Your task to perform on an android device: turn on showing notifications on the lock screen Image 0: 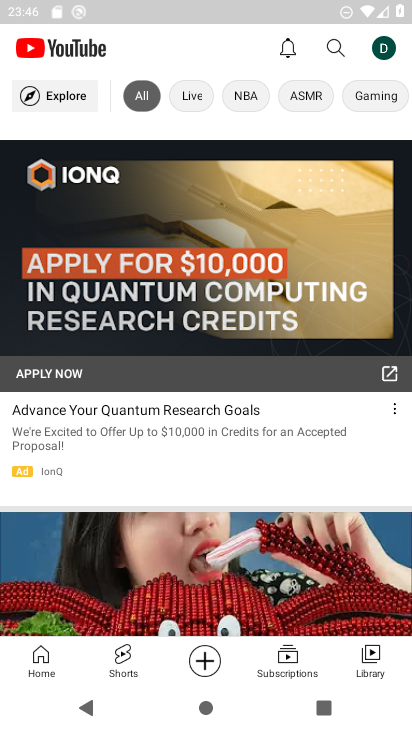
Step 0: press home button
Your task to perform on an android device: turn on showing notifications on the lock screen Image 1: 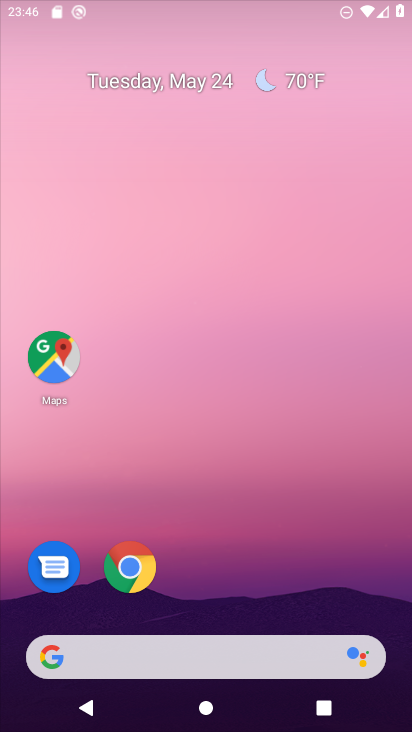
Step 1: drag from (305, 533) to (136, 7)
Your task to perform on an android device: turn on showing notifications on the lock screen Image 2: 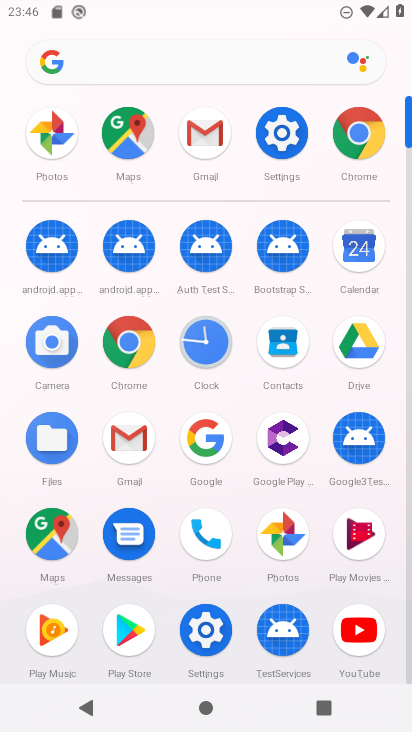
Step 2: click (279, 128)
Your task to perform on an android device: turn on showing notifications on the lock screen Image 3: 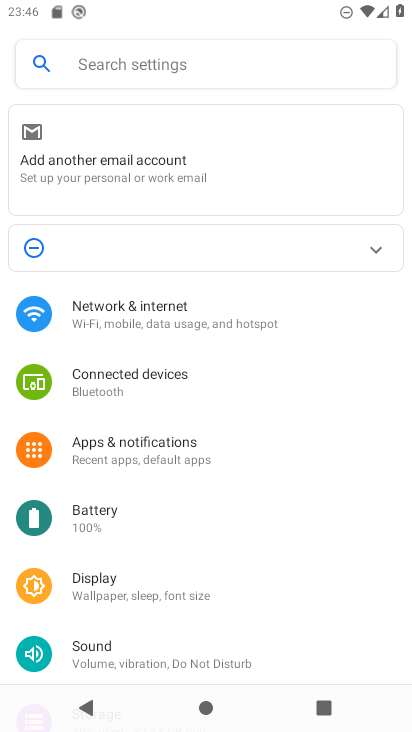
Step 3: click (213, 443)
Your task to perform on an android device: turn on showing notifications on the lock screen Image 4: 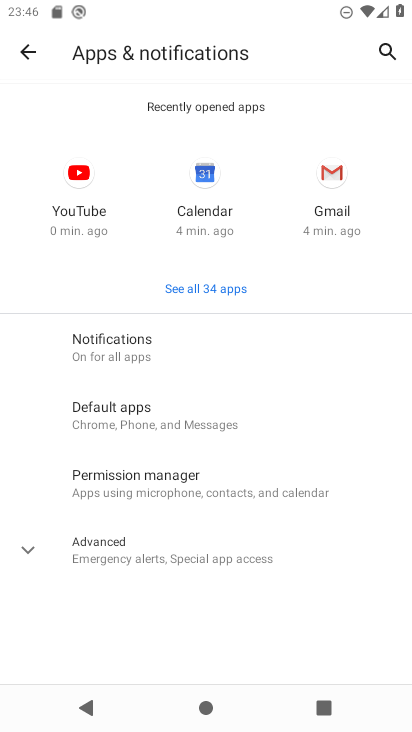
Step 4: click (184, 346)
Your task to perform on an android device: turn on showing notifications on the lock screen Image 5: 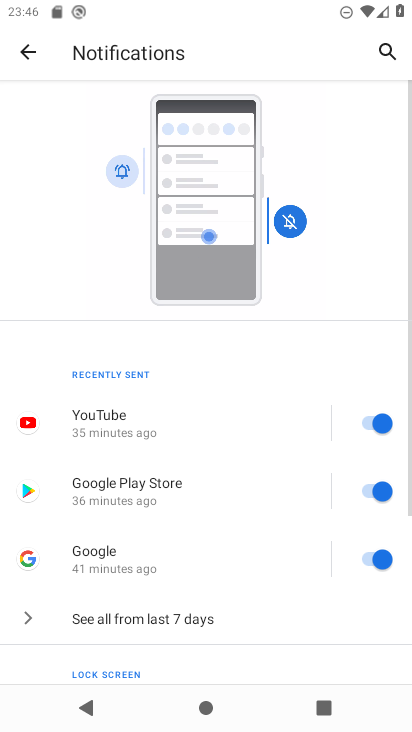
Step 5: drag from (240, 625) to (239, 353)
Your task to perform on an android device: turn on showing notifications on the lock screen Image 6: 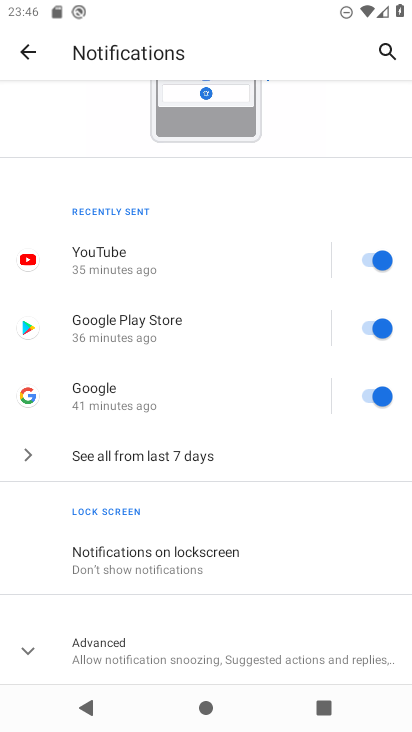
Step 6: click (235, 542)
Your task to perform on an android device: turn on showing notifications on the lock screen Image 7: 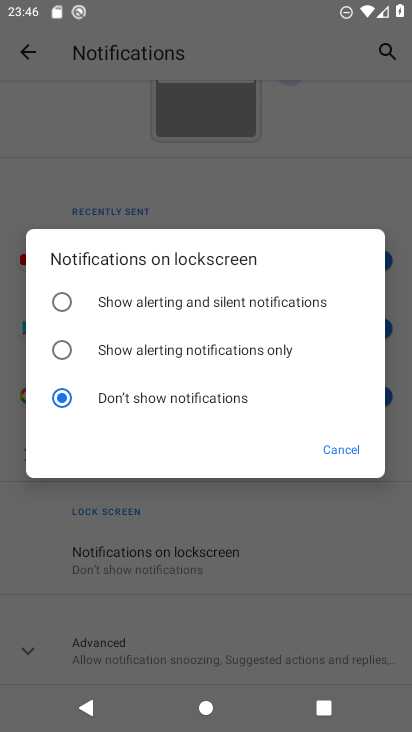
Step 7: click (238, 297)
Your task to perform on an android device: turn on showing notifications on the lock screen Image 8: 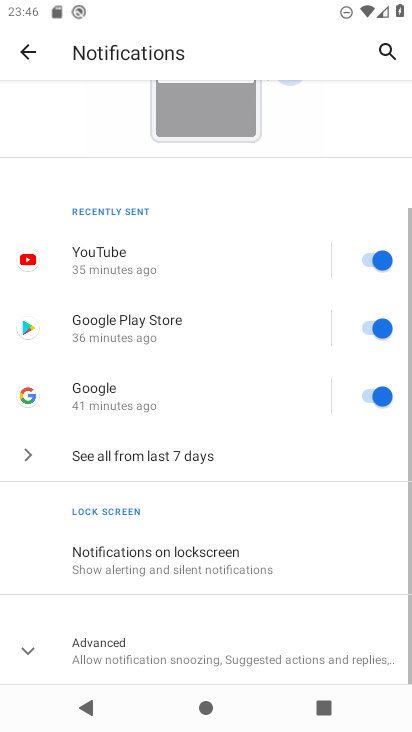
Step 8: task complete